Your task to perform on an android device: Go to calendar. Show me events next week Image 0: 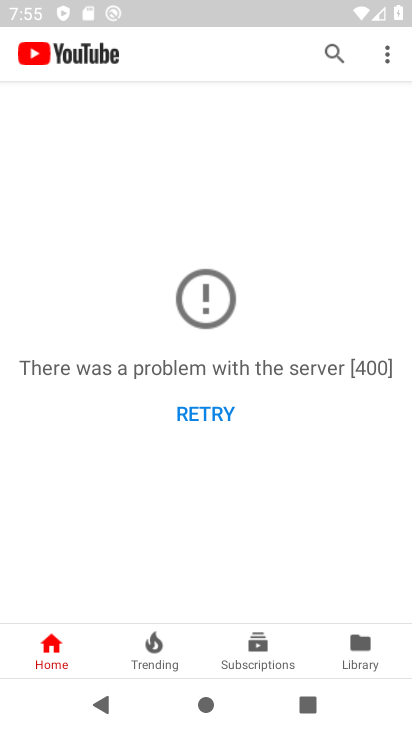
Step 0: press home button
Your task to perform on an android device: Go to calendar. Show me events next week Image 1: 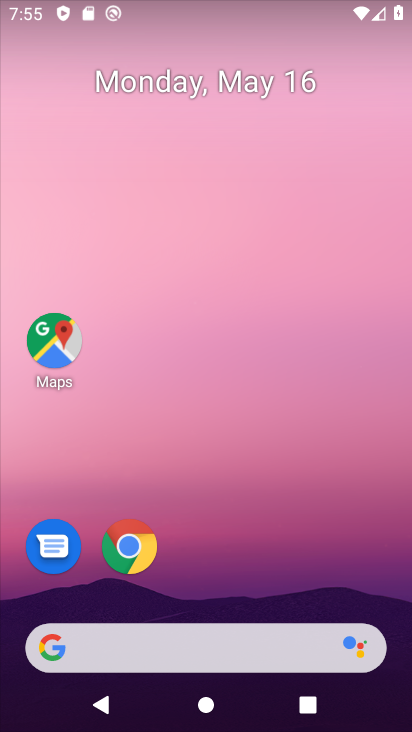
Step 1: drag from (307, 561) to (334, 7)
Your task to perform on an android device: Go to calendar. Show me events next week Image 2: 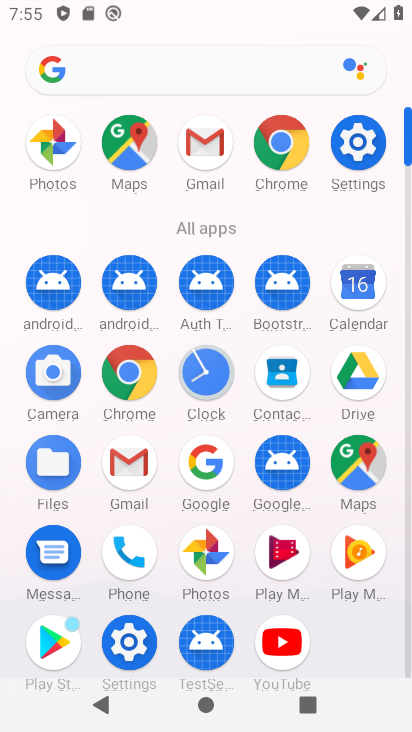
Step 2: click (340, 312)
Your task to perform on an android device: Go to calendar. Show me events next week Image 3: 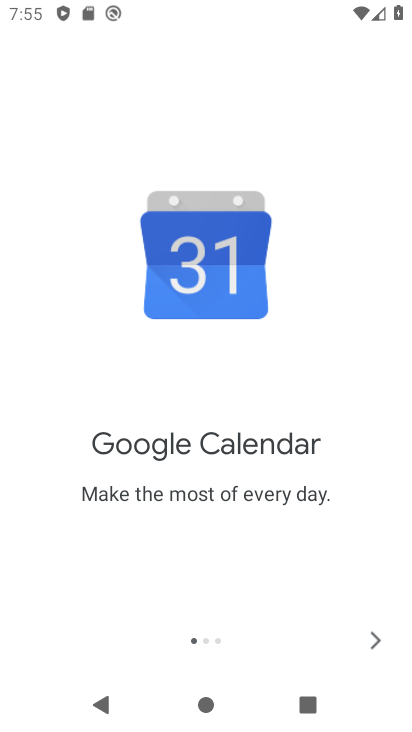
Step 3: click (379, 650)
Your task to perform on an android device: Go to calendar. Show me events next week Image 4: 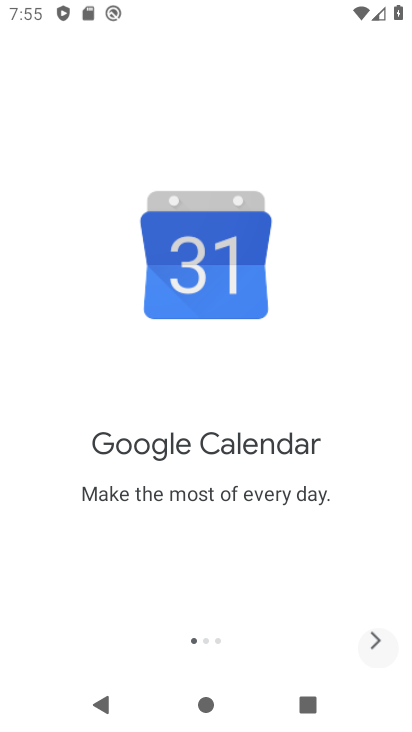
Step 4: click (379, 650)
Your task to perform on an android device: Go to calendar. Show me events next week Image 5: 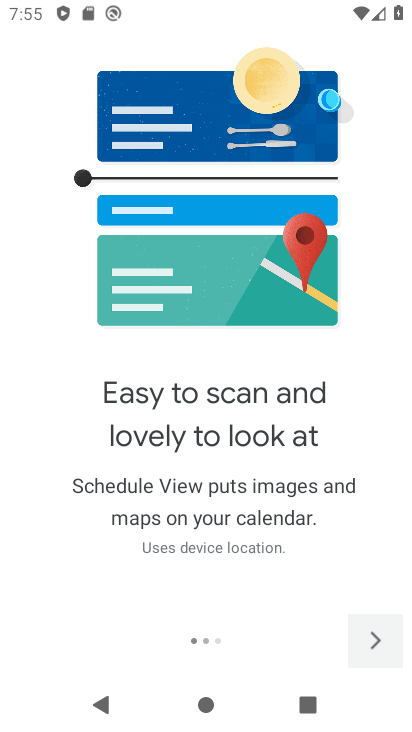
Step 5: click (379, 650)
Your task to perform on an android device: Go to calendar. Show me events next week Image 6: 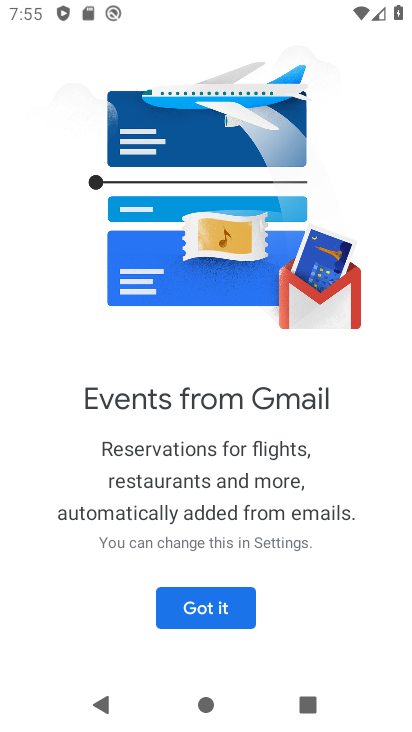
Step 6: click (185, 613)
Your task to perform on an android device: Go to calendar. Show me events next week Image 7: 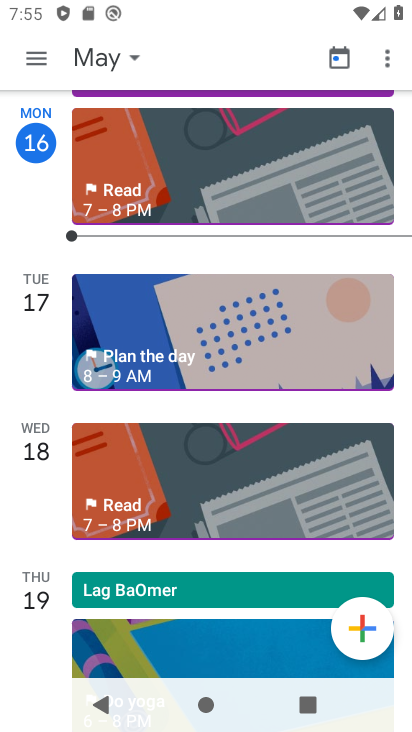
Step 7: click (92, 54)
Your task to perform on an android device: Go to calendar. Show me events next week Image 8: 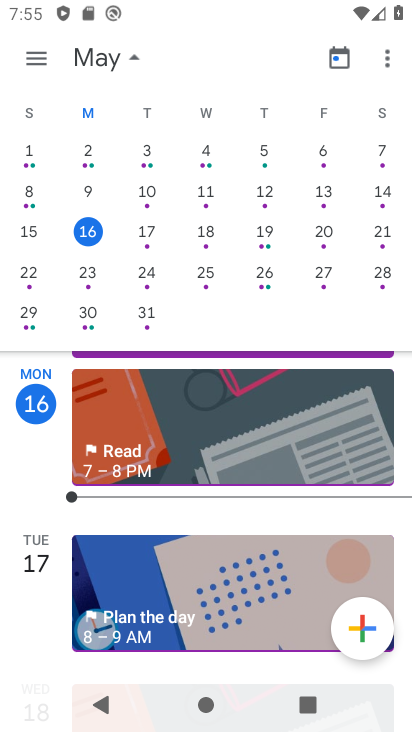
Step 8: click (51, 57)
Your task to perform on an android device: Go to calendar. Show me events next week Image 9: 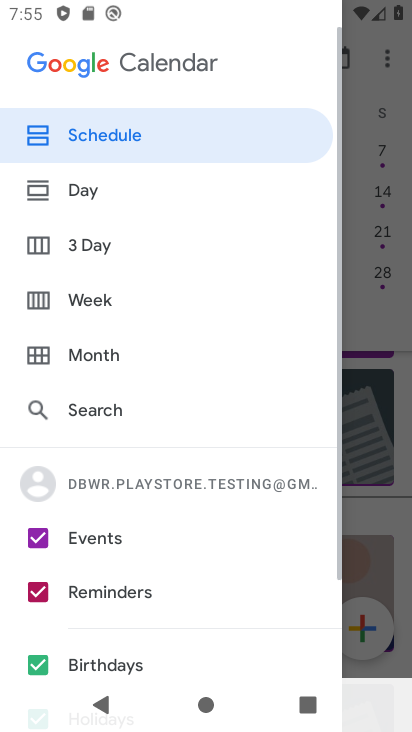
Step 9: click (138, 349)
Your task to perform on an android device: Go to calendar. Show me events next week Image 10: 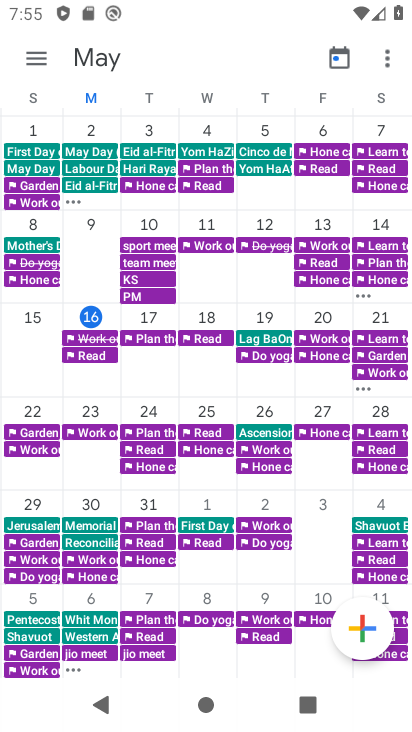
Step 10: task complete